Your task to perform on an android device: Open the calendar app, open the side menu, and click the "Day" option Image 0: 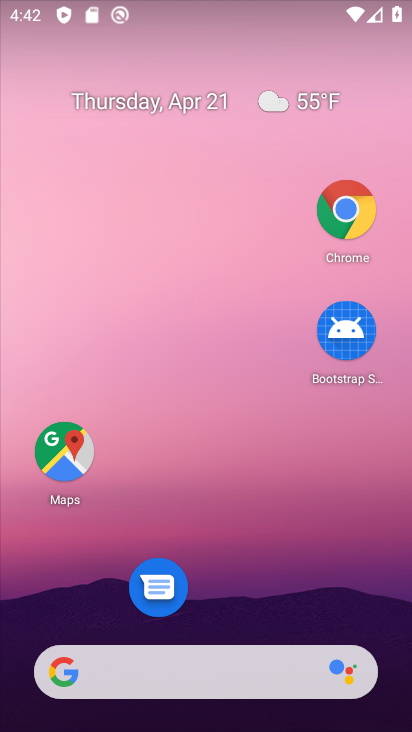
Step 0: press home button
Your task to perform on an android device: Open the calendar app, open the side menu, and click the "Day" option Image 1: 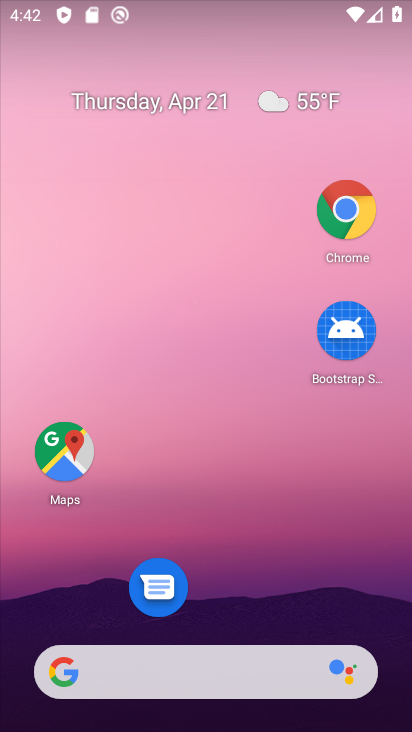
Step 1: drag from (279, 515) to (224, 97)
Your task to perform on an android device: Open the calendar app, open the side menu, and click the "Day" option Image 2: 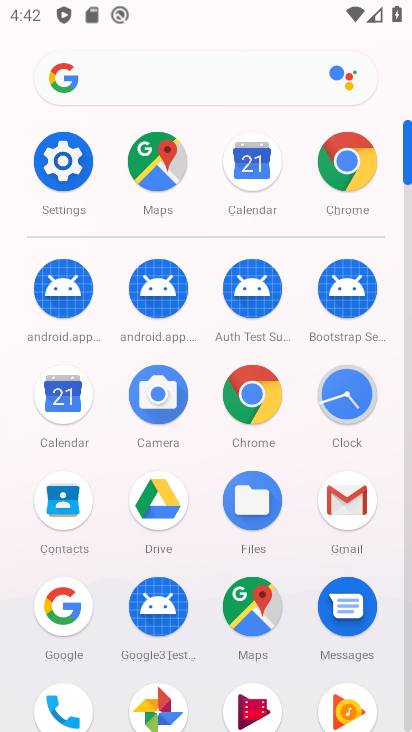
Step 2: click (264, 577)
Your task to perform on an android device: Open the calendar app, open the side menu, and click the "Day" option Image 3: 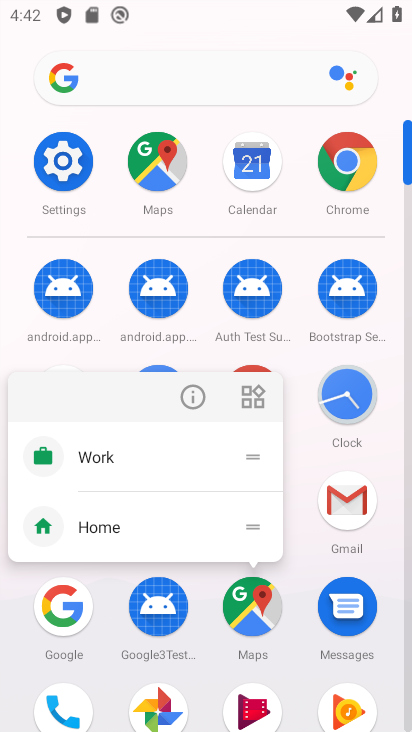
Step 3: click (311, 442)
Your task to perform on an android device: Open the calendar app, open the side menu, and click the "Day" option Image 4: 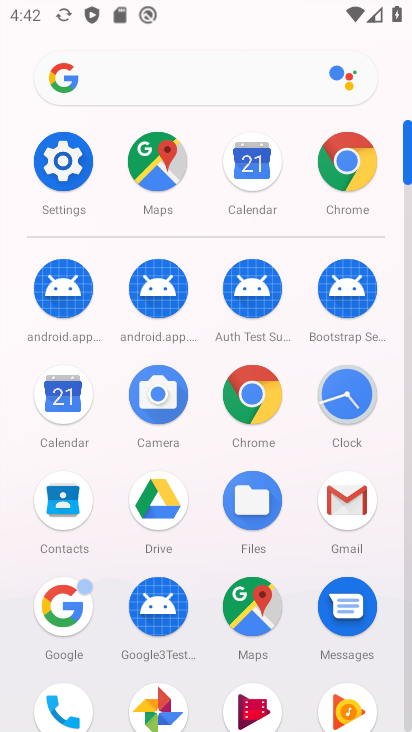
Step 4: click (74, 397)
Your task to perform on an android device: Open the calendar app, open the side menu, and click the "Day" option Image 5: 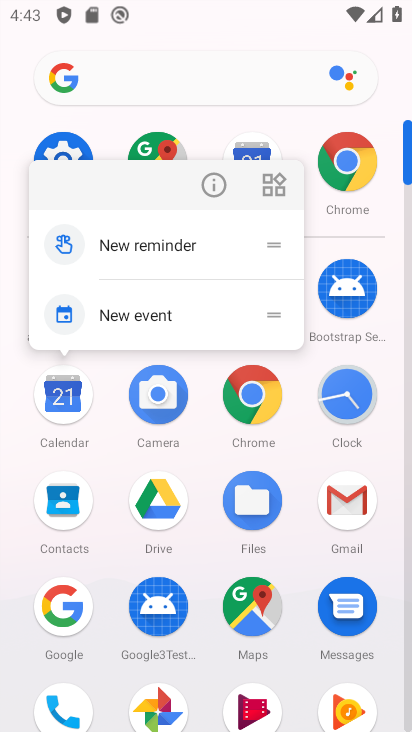
Step 5: click (69, 390)
Your task to perform on an android device: Open the calendar app, open the side menu, and click the "Day" option Image 6: 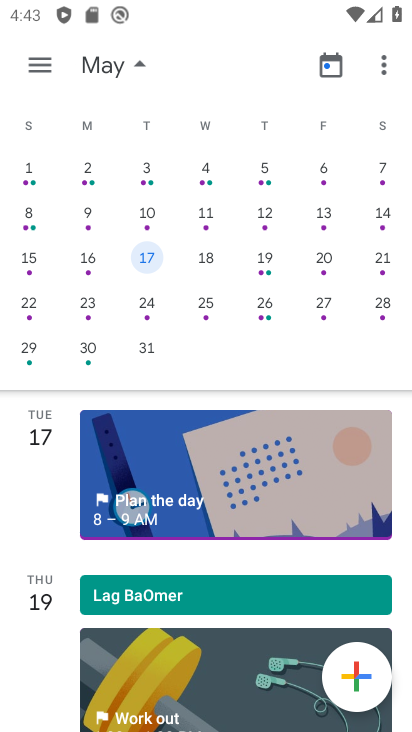
Step 6: click (41, 52)
Your task to perform on an android device: Open the calendar app, open the side menu, and click the "Day" option Image 7: 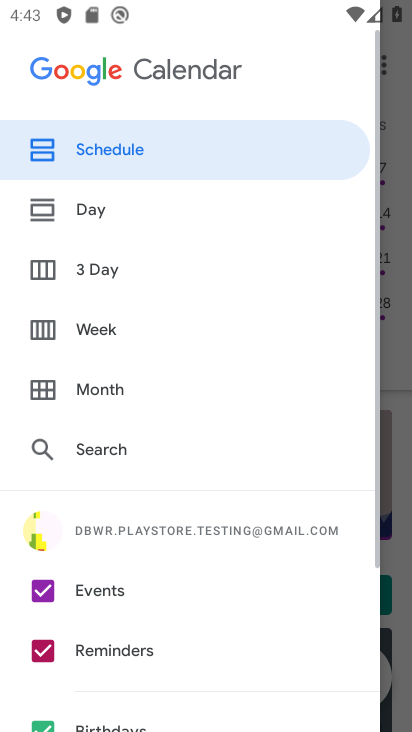
Step 7: click (76, 211)
Your task to perform on an android device: Open the calendar app, open the side menu, and click the "Day" option Image 8: 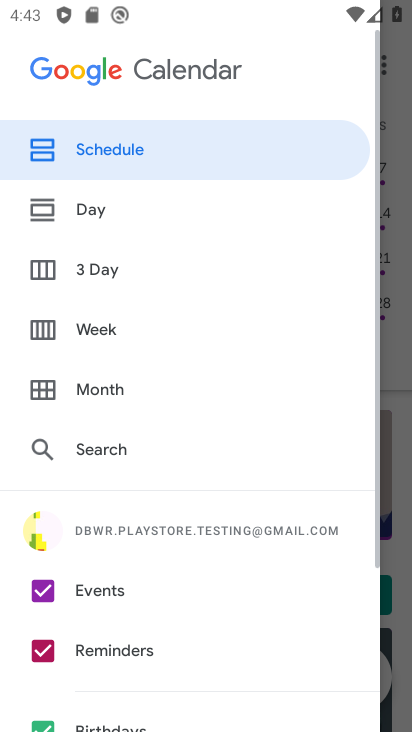
Step 8: click (67, 234)
Your task to perform on an android device: Open the calendar app, open the side menu, and click the "Day" option Image 9: 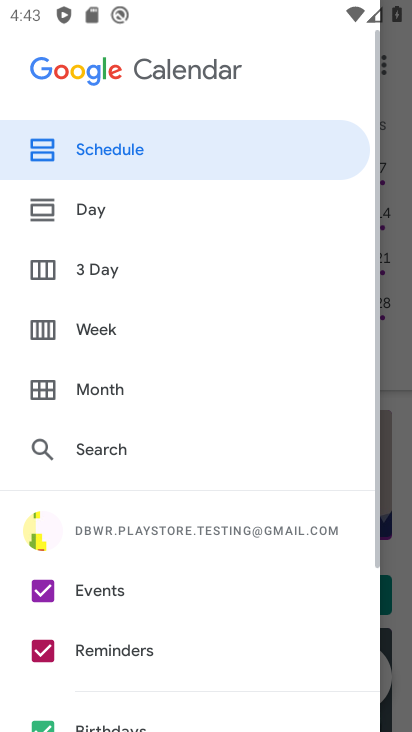
Step 9: click (66, 219)
Your task to perform on an android device: Open the calendar app, open the side menu, and click the "Day" option Image 10: 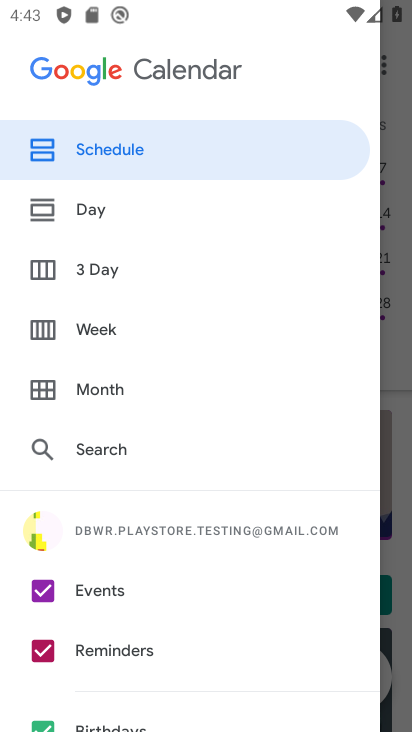
Step 10: click (89, 208)
Your task to perform on an android device: Open the calendar app, open the side menu, and click the "Day" option Image 11: 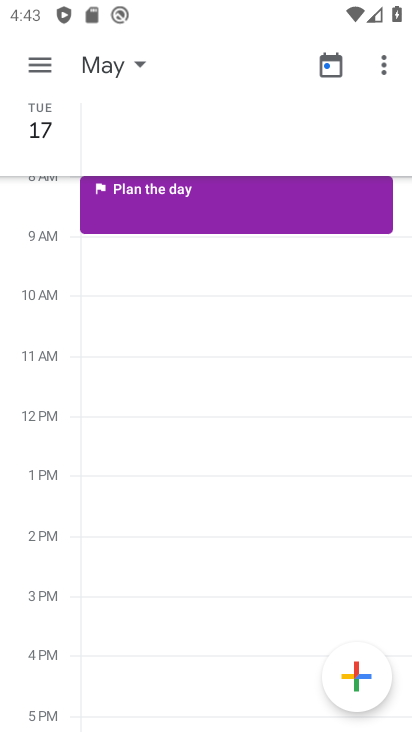
Step 11: task complete